Your task to perform on an android device: turn on location history Image 0: 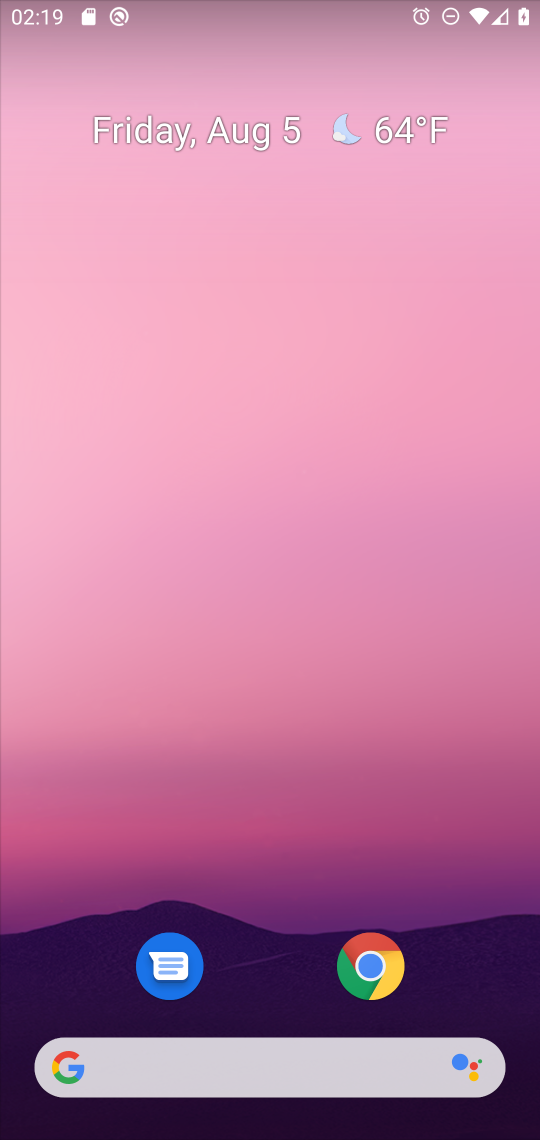
Step 0: drag from (304, 883) to (370, 10)
Your task to perform on an android device: turn on location history Image 1: 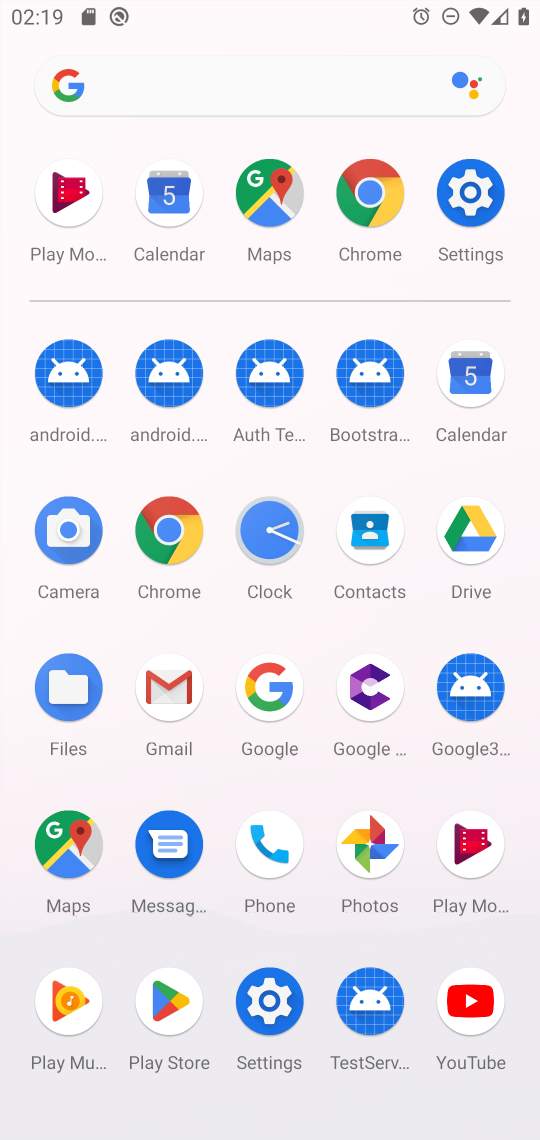
Step 1: click (482, 191)
Your task to perform on an android device: turn on location history Image 2: 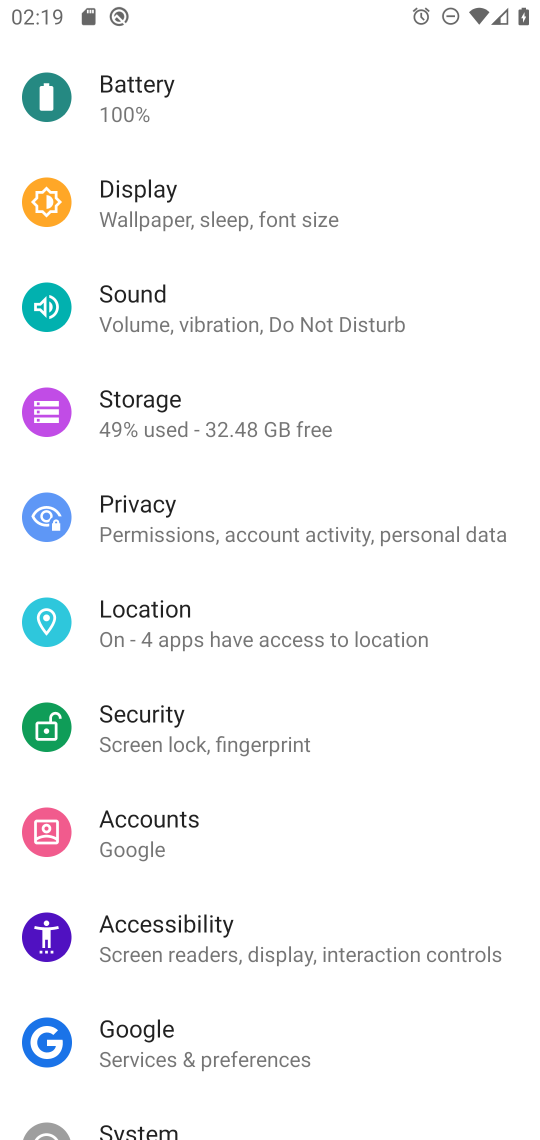
Step 2: click (262, 633)
Your task to perform on an android device: turn on location history Image 3: 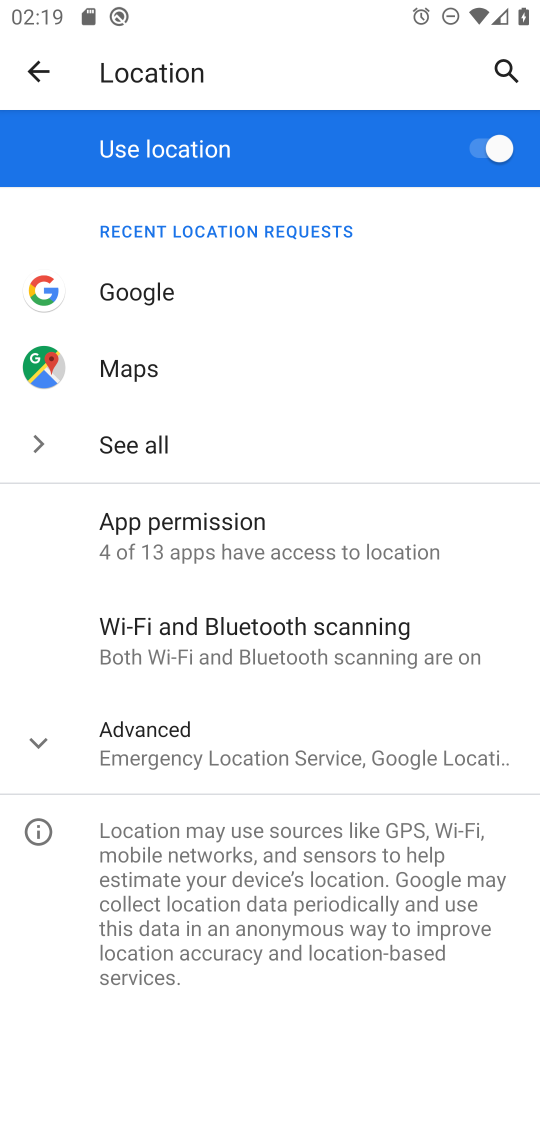
Step 3: click (30, 737)
Your task to perform on an android device: turn on location history Image 4: 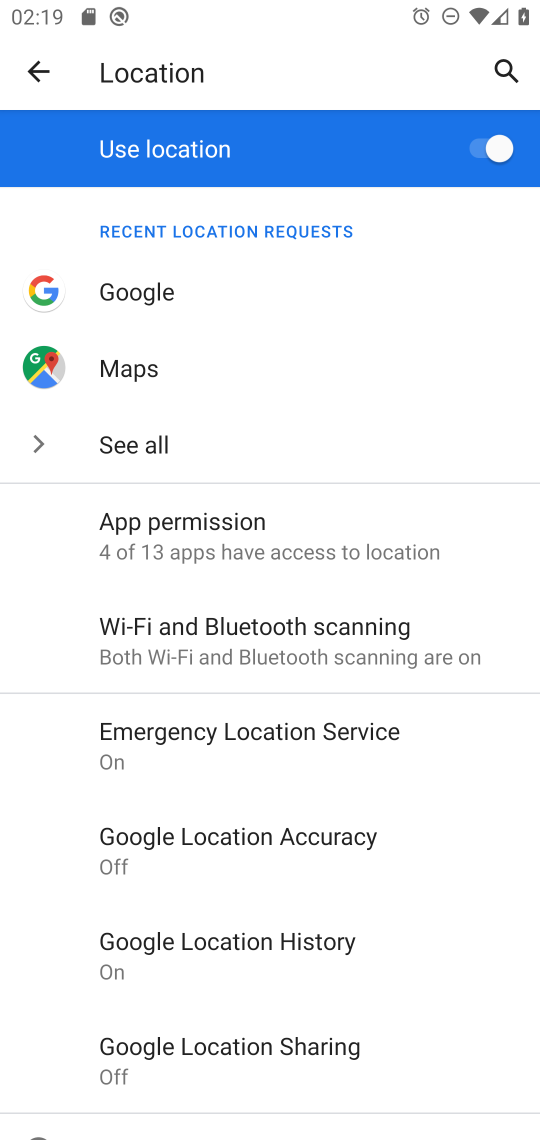
Step 4: task complete